Your task to perform on an android device: turn on the 24-hour format for clock Image 0: 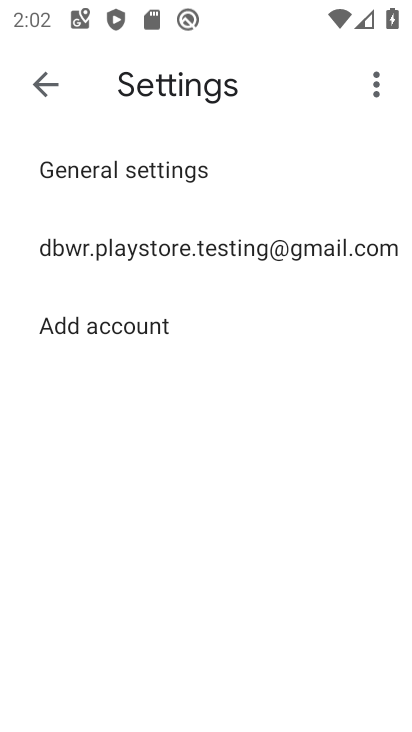
Step 0: press home button
Your task to perform on an android device: turn on the 24-hour format for clock Image 1: 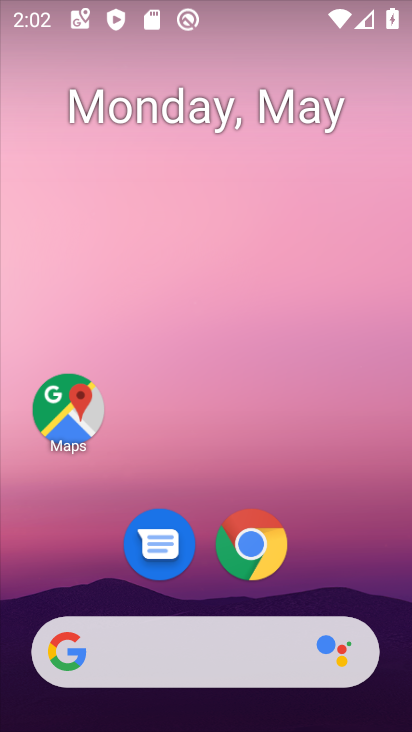
Step 1: drag from (384, 547) to (367, 246)
Your task to perform on an android device: turn on the 24-hour format for clock Image 2: 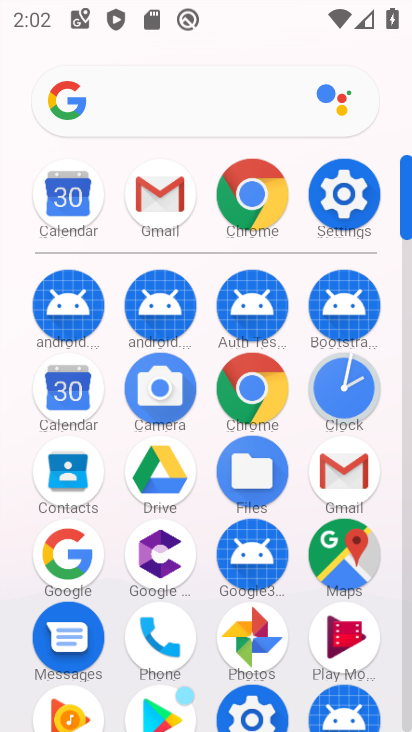
Step 2: click (379, 396)
Your task to perform on an android device: turn on the 24-hour format for clock Image 3: 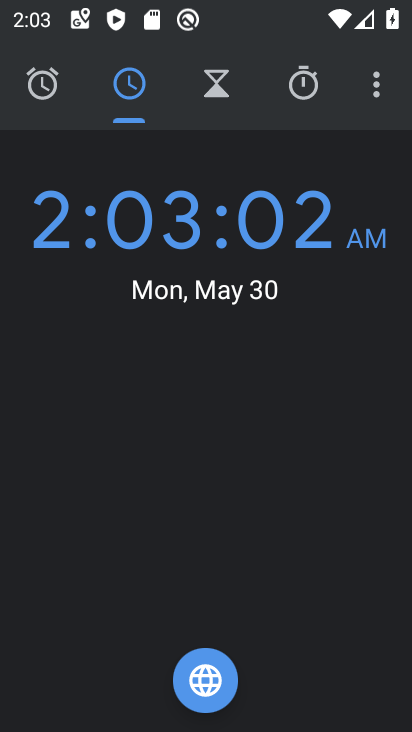
Step 3: click (375, 112)
Your task to perform on an android device: turn on the 24-hour format for clock Image 4: 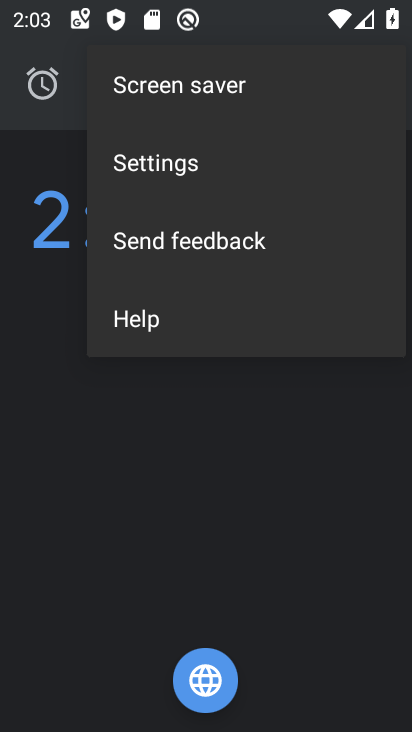
Step 4: click (131, 184)
Your task to perform on an android device: turn on the 24-hour format for clock Image 5: 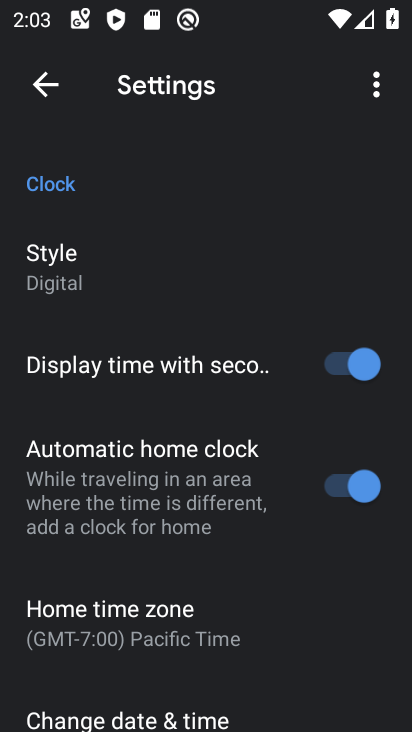
Step 5: drag from (292, 571) to (291, 483)
Your task to perform on an android device: turn on the 24-hour format for clock Image 6: 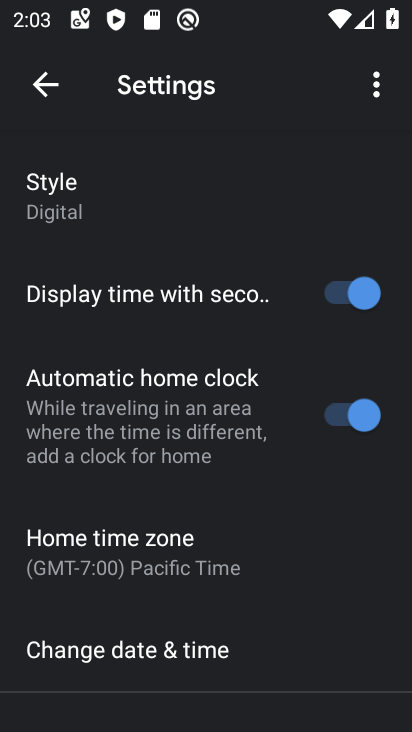
Step 6: drag from (319, 597) to (314, 491)
Your task to perform on an android device: turn on the 24-hour format for clock Image 7: 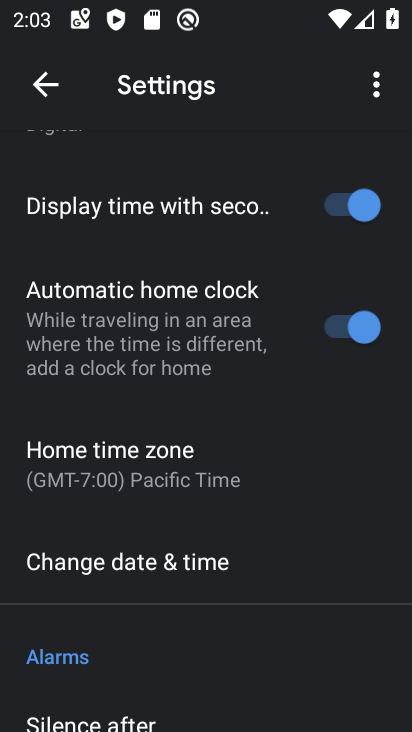
Step 7: drag from (309, 589) to (309, 509)
Your task to perform on an android device: turn on the 24-hour format for clock Image 8: 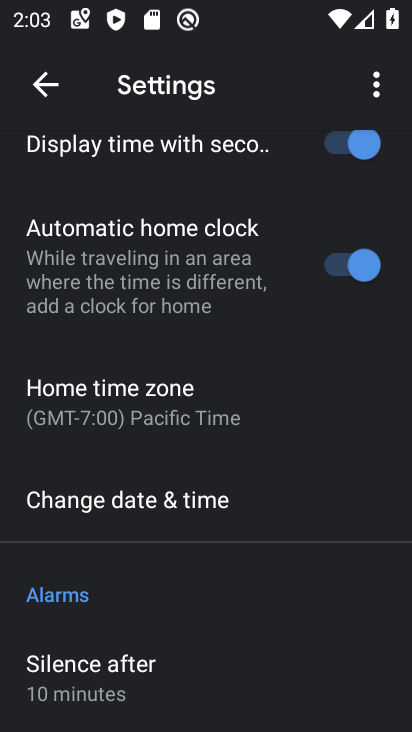
Step 8: drag from (310, 595) to (298, 512)
Your task to perform on an android device: turn on the 24-hour format for clock Image 9: 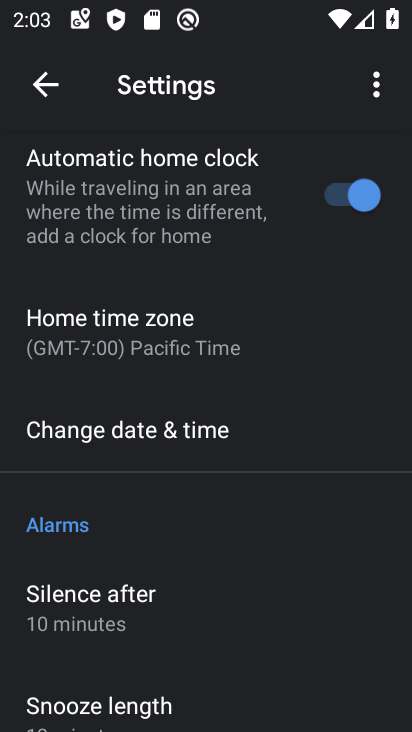
Step 9: click (185, 441)
Your task to perform on an android device: turn on the 24-hour format for clock Image 10: 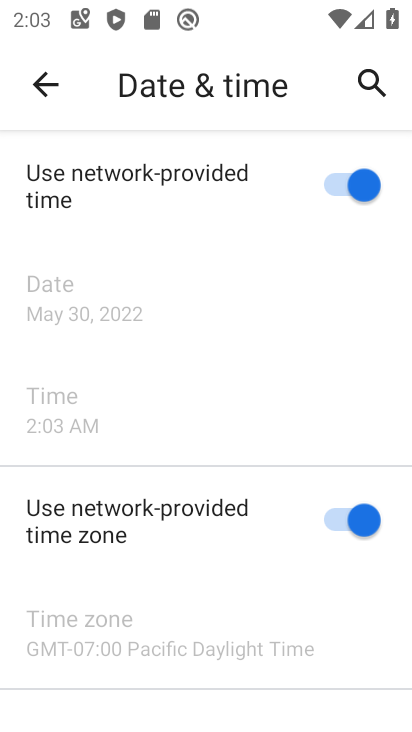
Step 10: drag from (328, 587) to (330, 345)
Your task to perform on an android device: turn on the 24-hour format for clock Image 11: 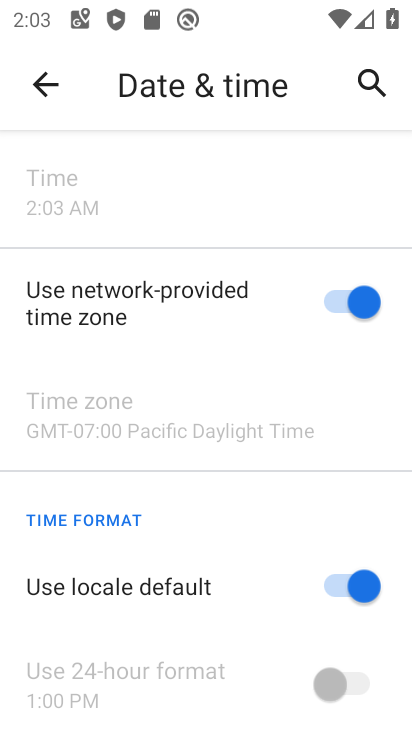
Step 11: click (363, 588)
Your task to perform on an android device: turn on the 24-hour format for clock Image 12: 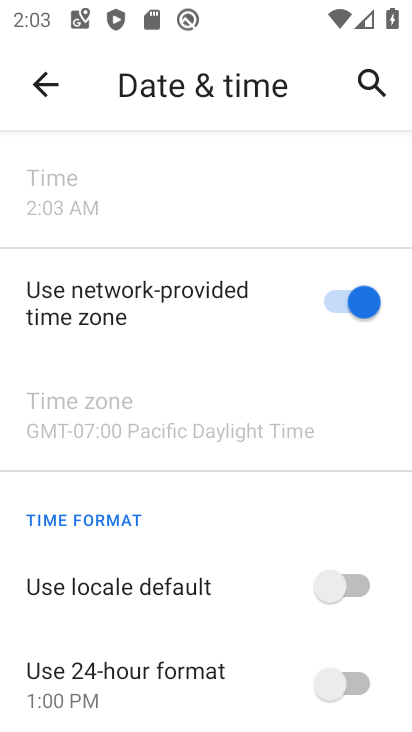
Step 12: click (354, 685)
Your task to perform on an android device: turn on the 24-hour format for clock Image 13: 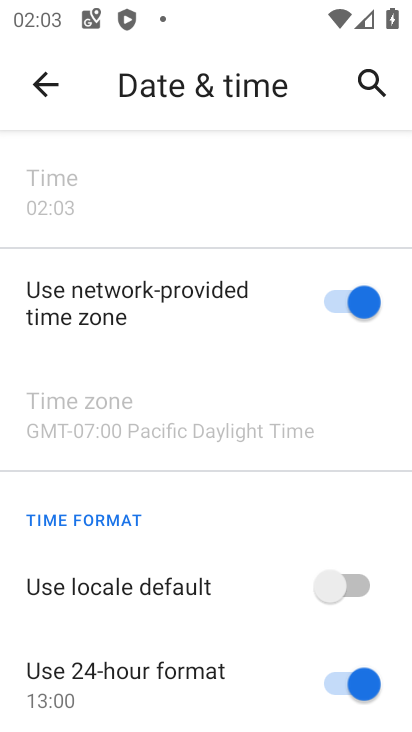
Step 13: task complete